Your task to perform on an android device: Go to internet settings Image 0: 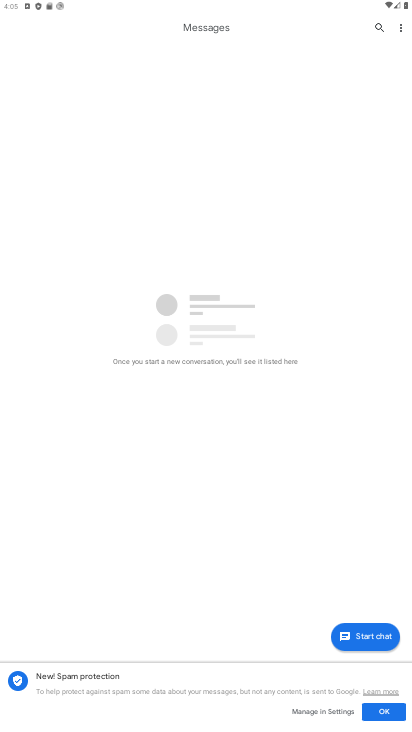
Step 0: press home button
Your task to perform on an android device: Go to internet settings Image 1: 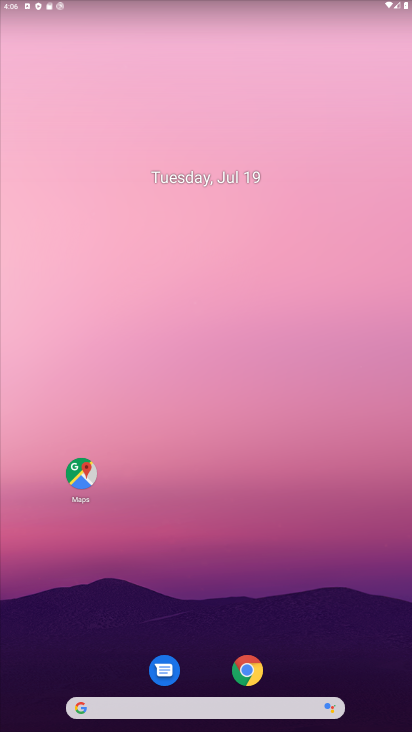
Step 1: drag from (291, 706) to (252, 158)
Your task to perform on an android device: Go to internet settings Image 2: 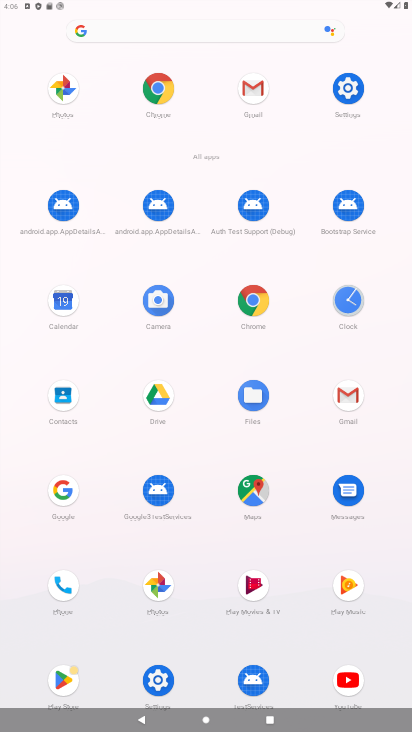
Step 2: click (354, 82)
Your task to perform on an android device: Go to internet settings Image 3: 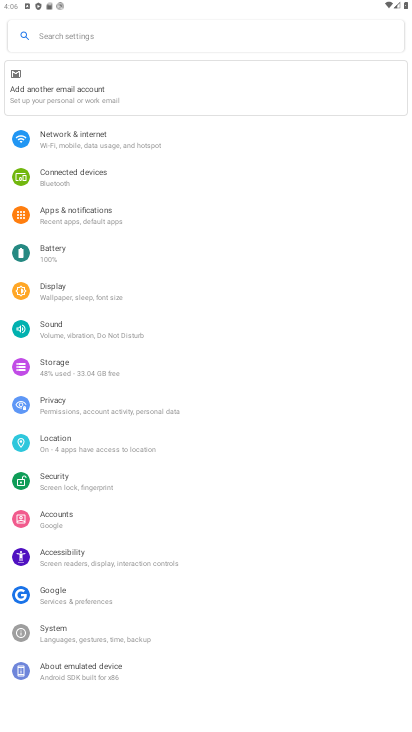
Step 3: click (101, 135)
Your task to perform on an android device: Go to internet settings Image 4: 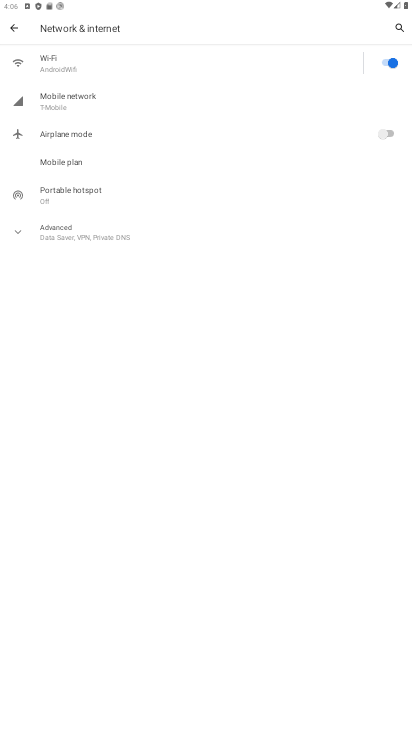
Step 4: click (90, 91)
Your task to perform on an android device: Go to internet settings Image 5: 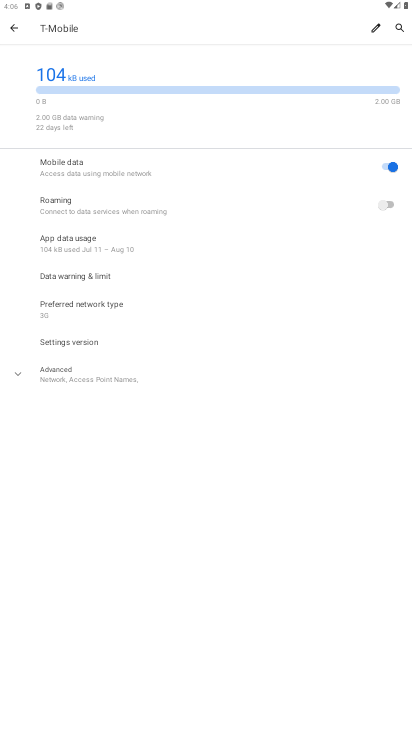
Step 5: task complete